Your task to perform on an android device: Show me recent news Image 0: 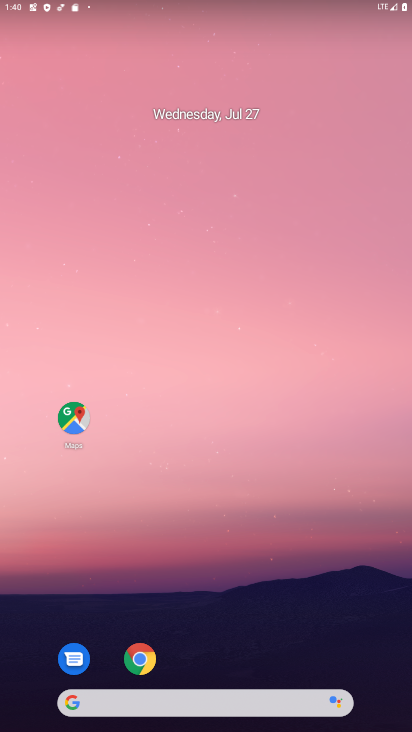
Step 0: drag from (0, 207) to (411, 392)
Your task to perform on an android device: Show me recent news Image 1: 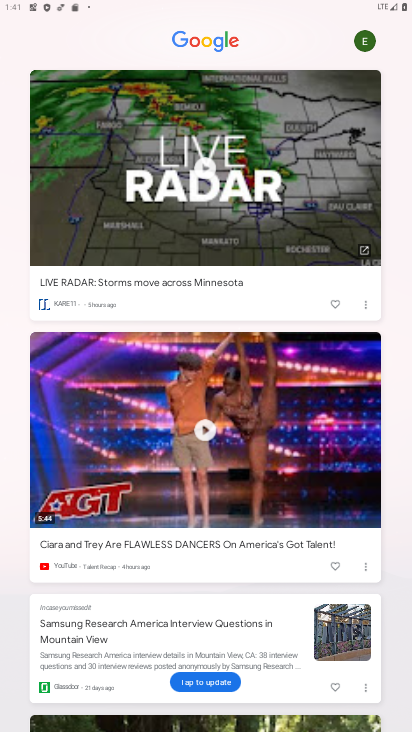
Step 1: task complete